Your task to perform on an android device: Check the weather Image 0: 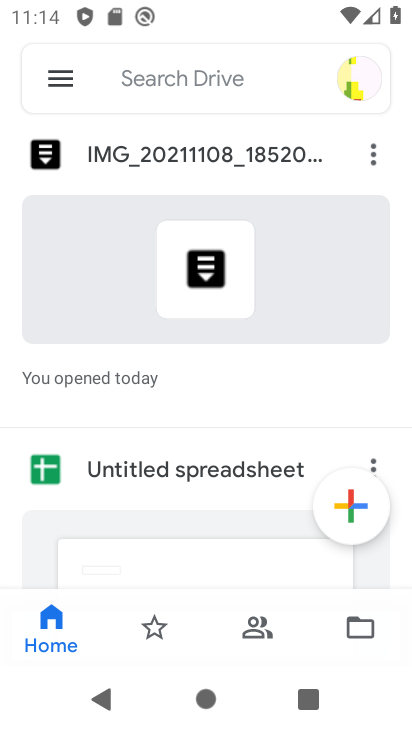
Step 0: press back button
Your task to perform on an android device: Check the weather Image 1: 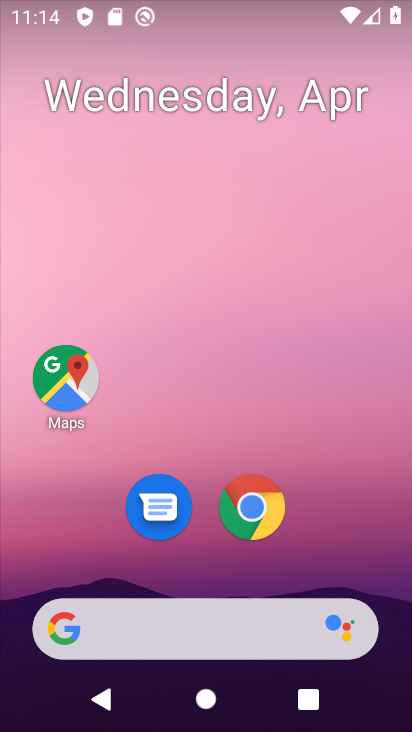
Step 1: click (212, 614)
Your task to perform on an android device: Check the weather Image 2: 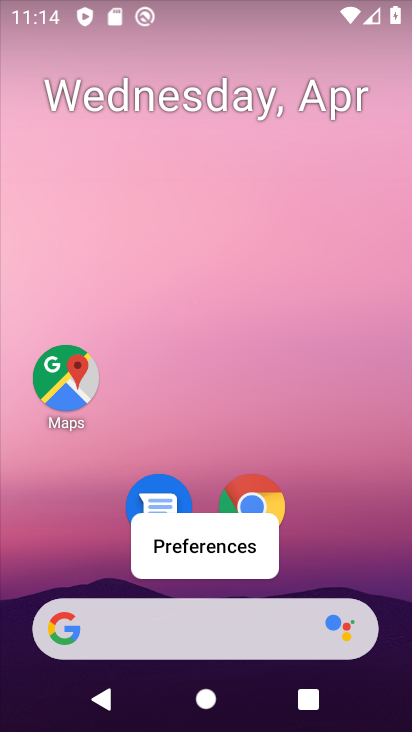
Step 2: click (188, 631)
Your task to perform on an android device: Check the weather Image 3: 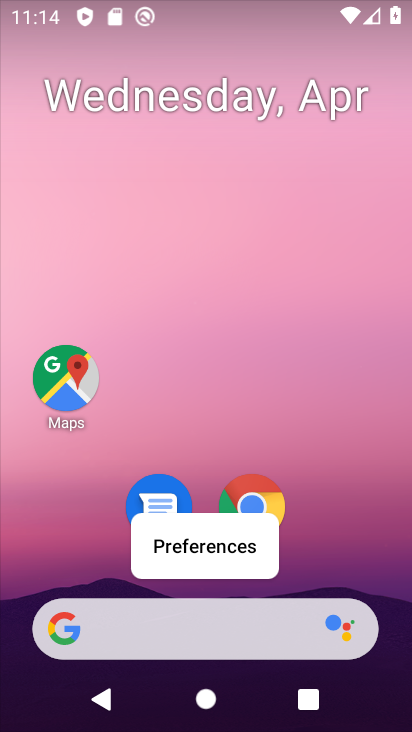
Step 3: click (188, 631)
Your task to perform on an android device: Check the weather Image 4: 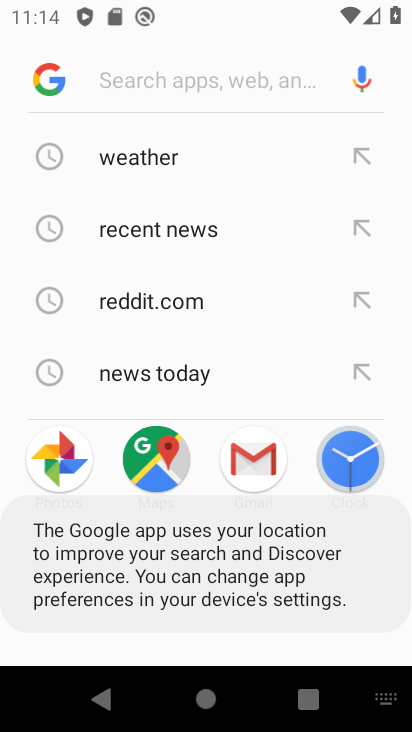
Step 4: click (184, 169)
Your task to perform on an android device: Check the weather Image 5: 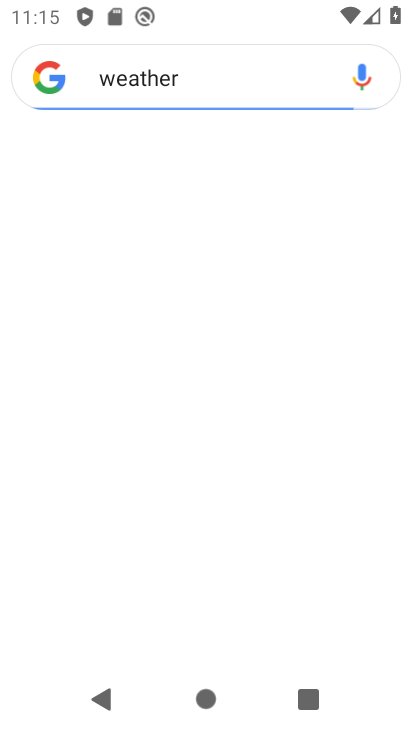
Step 5: click (174, 169)
Your task to perform on an android device: Check the weather Image 6: 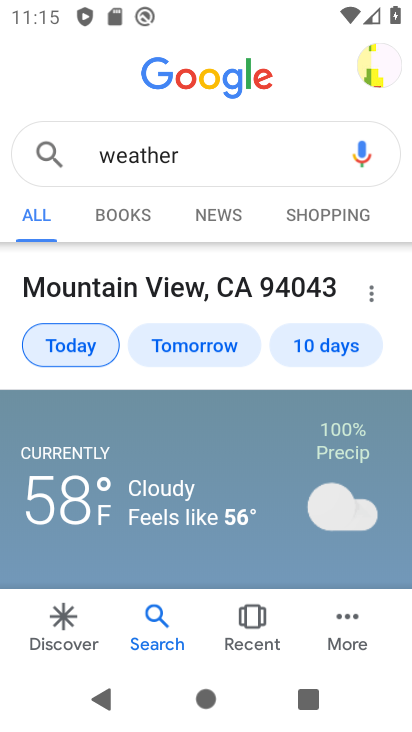
Step 6: task complete